Your task to perform on an android device: check google app version Image 0: 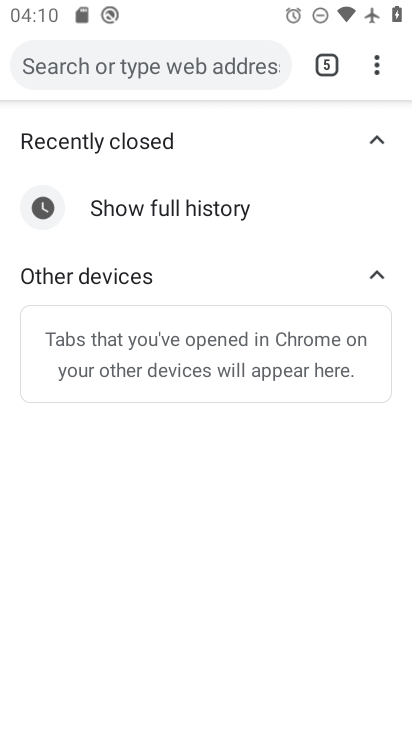
Step 0: press home button
Your task to perform on an android device: check google app version Image 1: 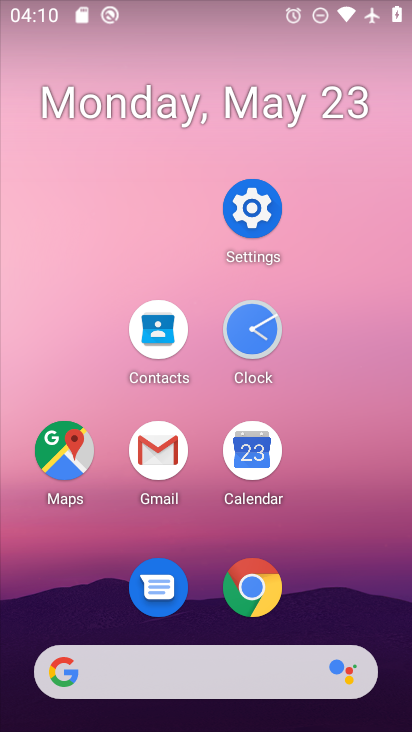
Step 1: click (268, 581)
Your task to perform on an android device: check google app version Image 2: 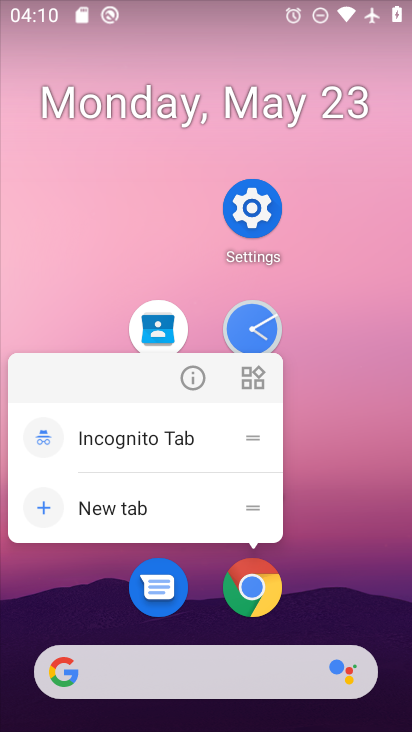
Step 2: click (192, 378)
Your task to perform on an android device: check google app version Image 3: 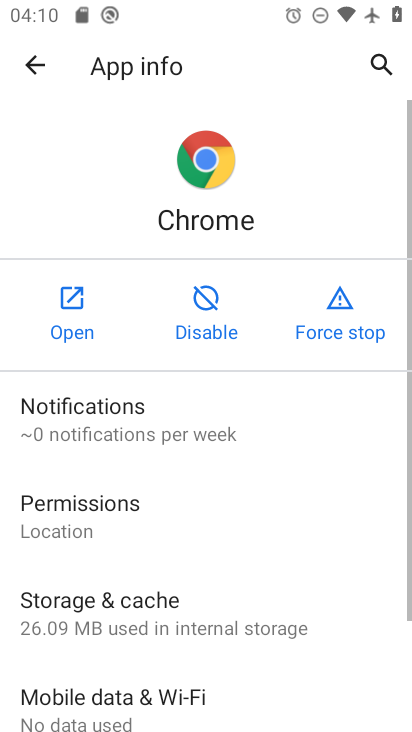
Step 3: task complete